Your task to perform on an android device: toggle javascript in the chrome app Image 0: 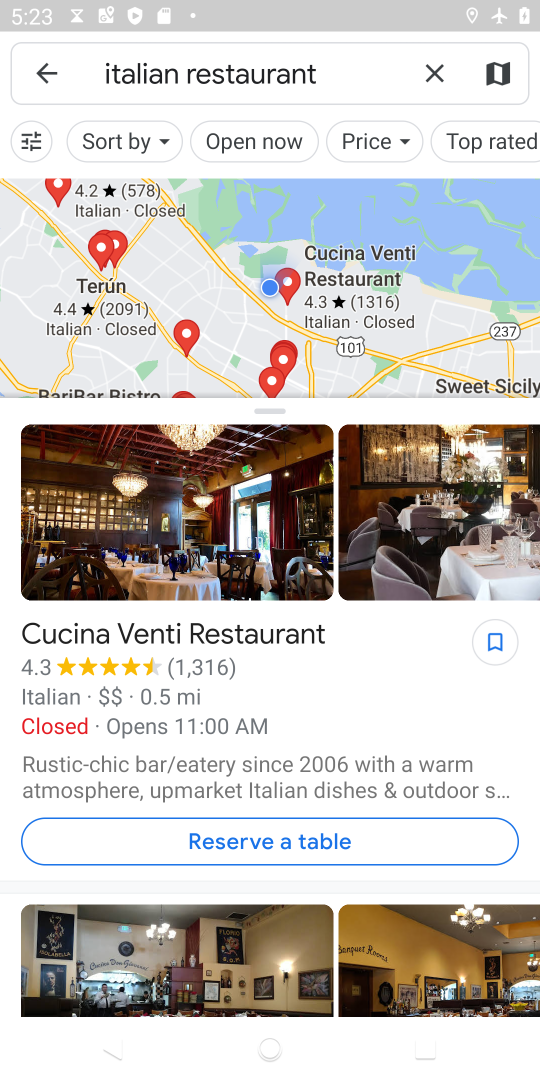
Step 0: press home button
Your task to perform on an android device: toggle javascript in the chrome app Image 1: 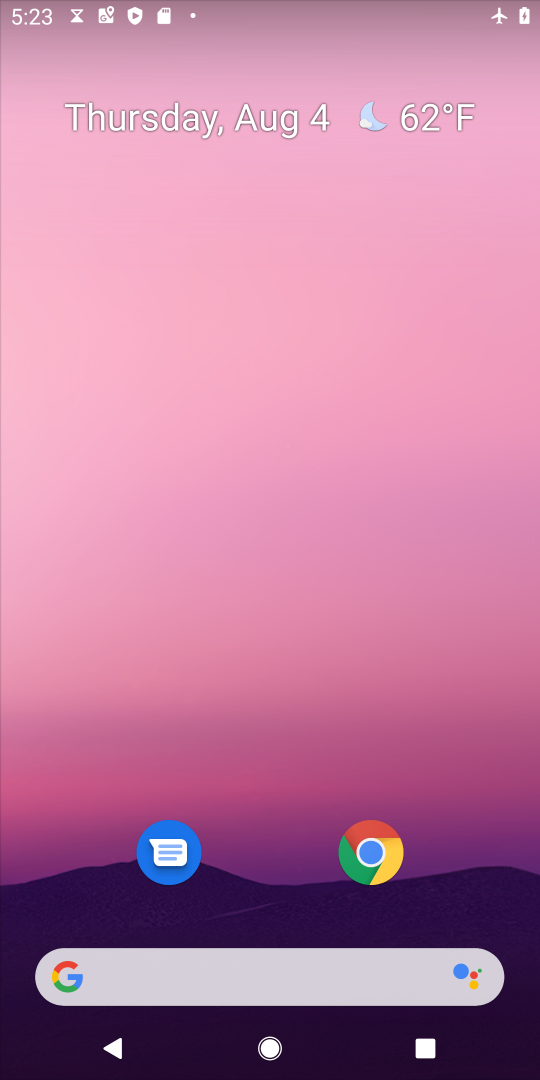
Step 1: click (372, 862)
Your task to perform on an android device: toggle javascript in the chrome app Image 2: 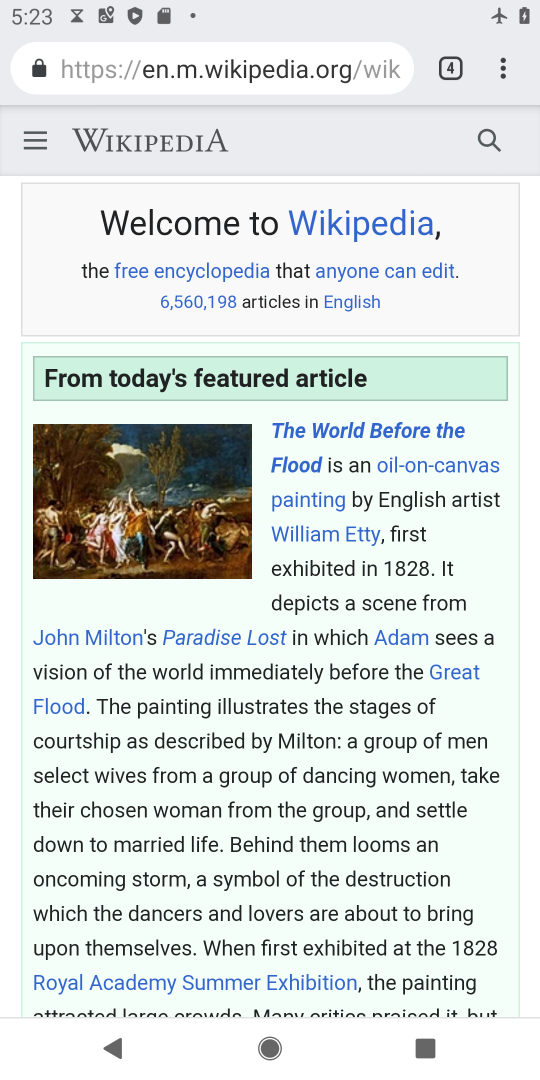
Step 2: click (506, 74)
Your task to perform on an android device: toggle javascript in the chrome app Image 3: 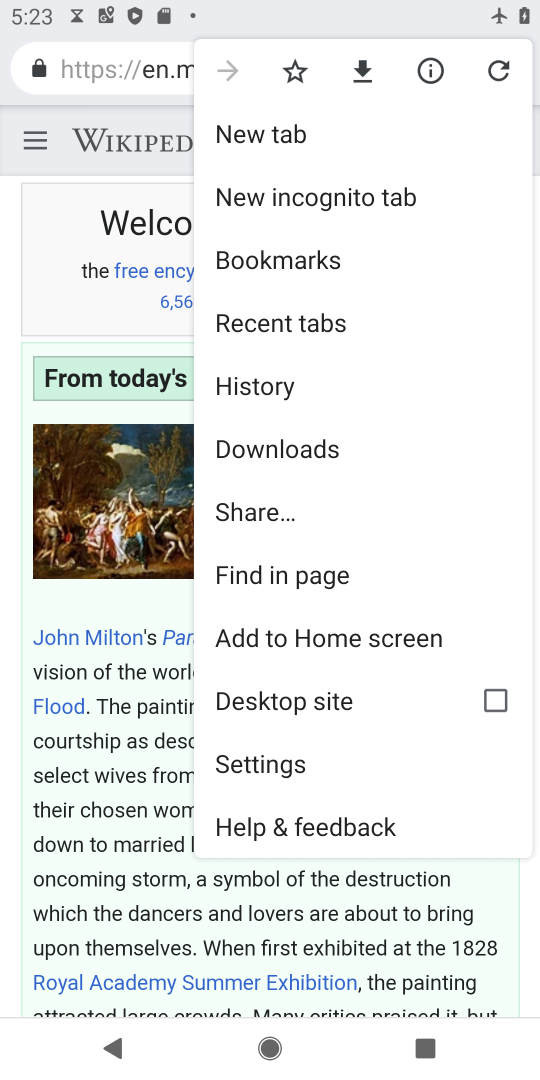
Step 3: click (249, 757)
Your task to perform on an android device: toggle javascript in the chrome app Image 4: 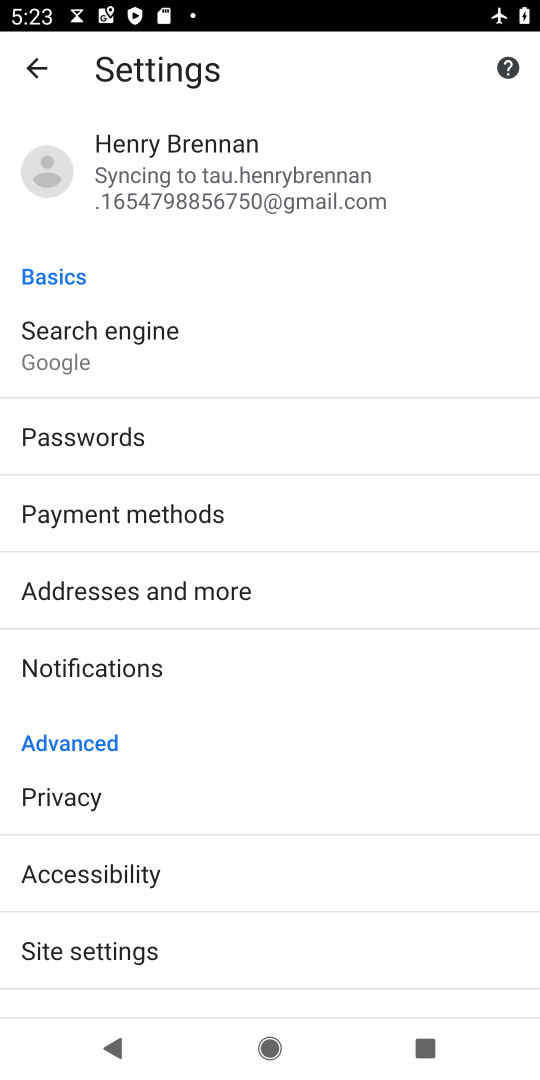
Step 4: click (78, 953)
Your task to perform on an android device: toggle javascript in the chrome app Image 5: 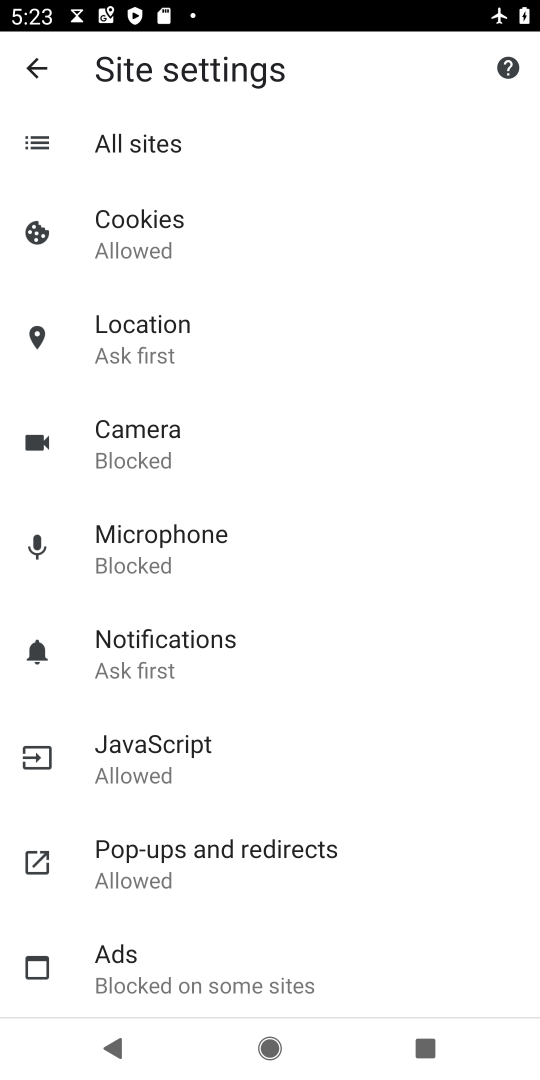
Step 5: click (138, 748)
Your task to perform on an android device: toggle javascript in the chrome app Image 6: 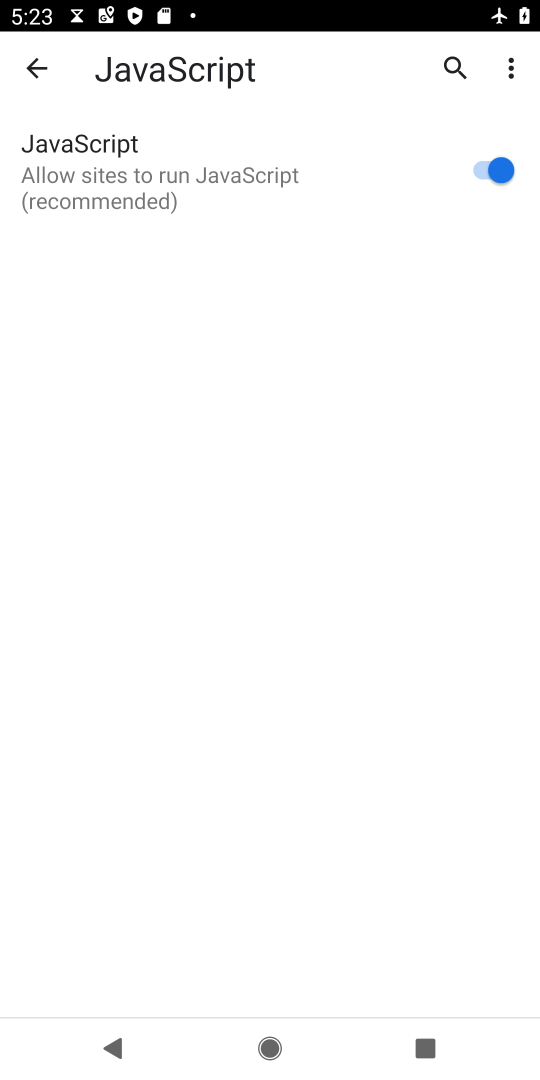
Step 6: task complete